Your task to perform on an android device: Go to Wikipedia Image 0: 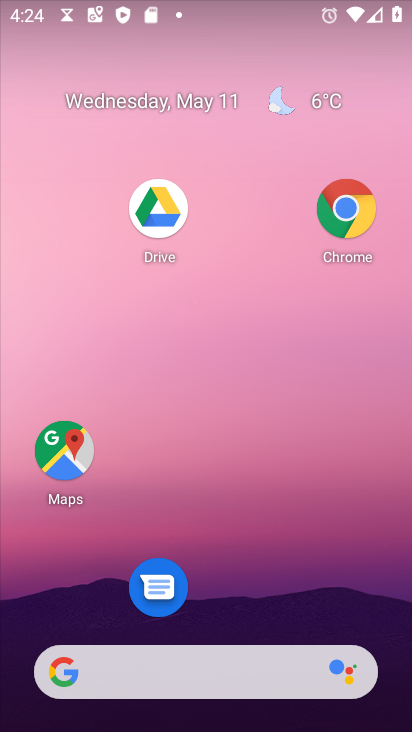
Step 0: click (72, 665)
Your task to perform on an android device: Go to Wikipedia Image 1: 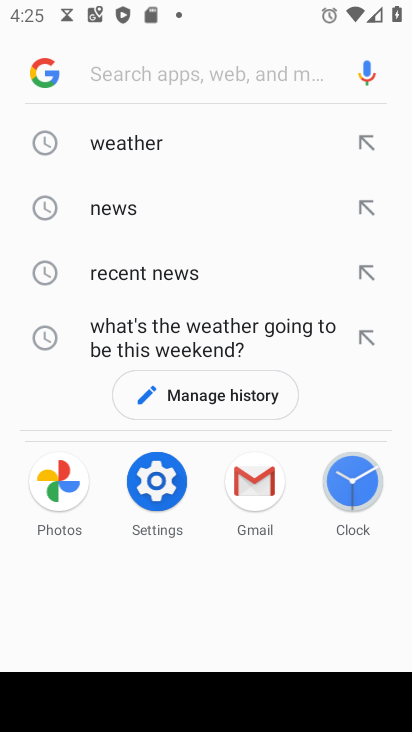
Step 1: press home button
Your task to perform on an android device: Go to Wikipedia Image 2: 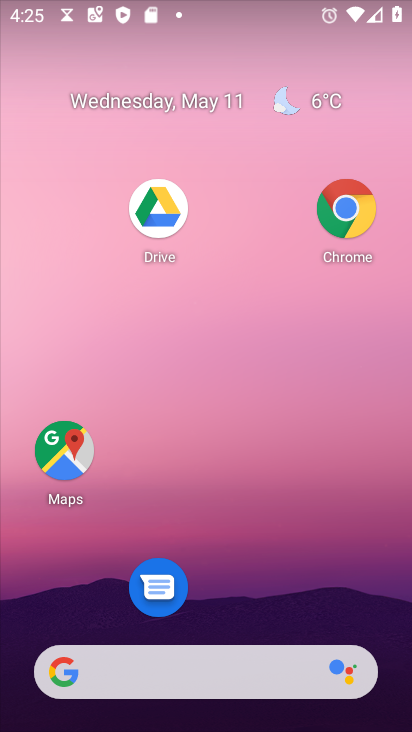
Step 2: click (342, 227)
Your task to perform on an android device: Go to Wikipedia Image 3: 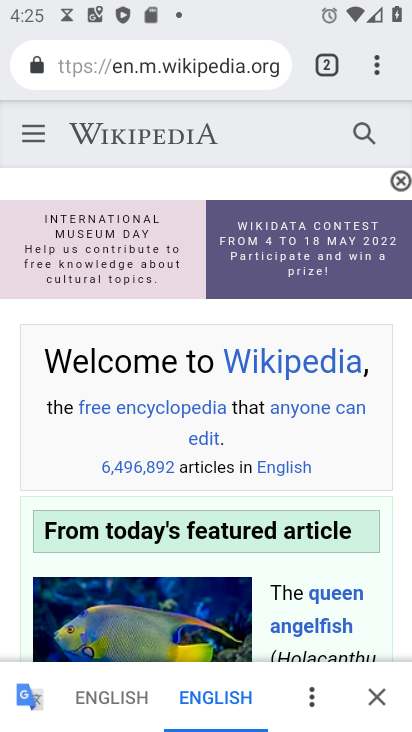
Step 3: task complete